Your task to perform on an android device: Open CNN.com Image 0: 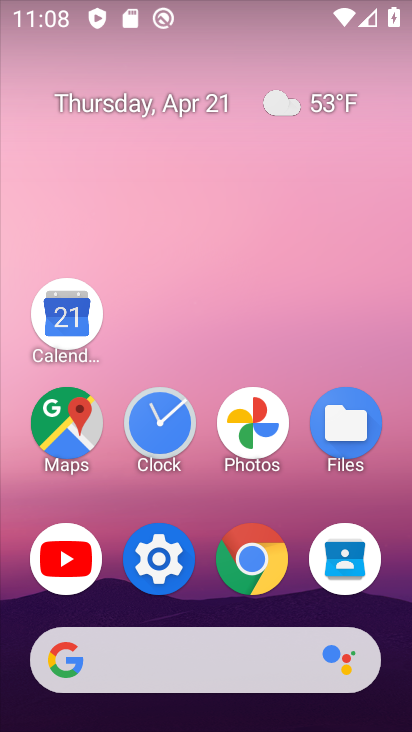
Step 0: click (249, 558)
Your task to perform on an android device: Open CNN.com Image 1: 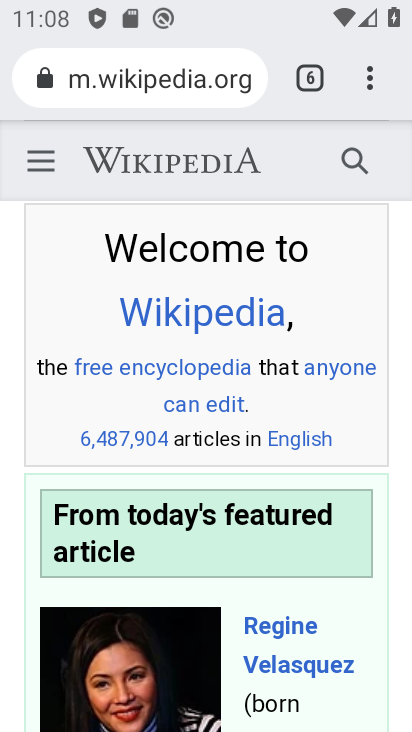
Step 1: click (368, 79)
Your task to perform on an android device: Open CNN.com Image 2: 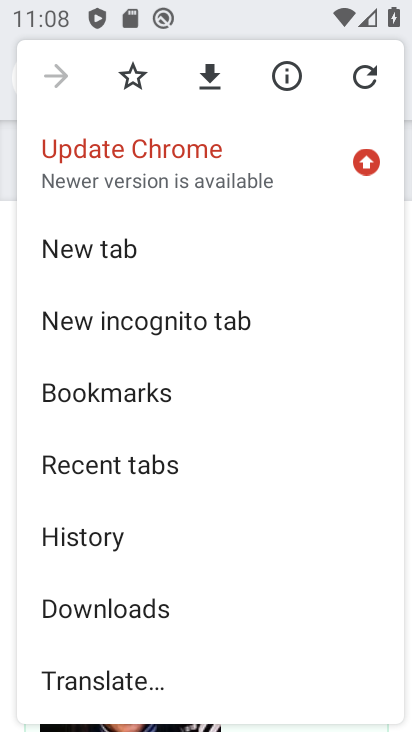
Step 2: click (107, 253)
Your task to perform on an android device: Open CNN.com Image 3: 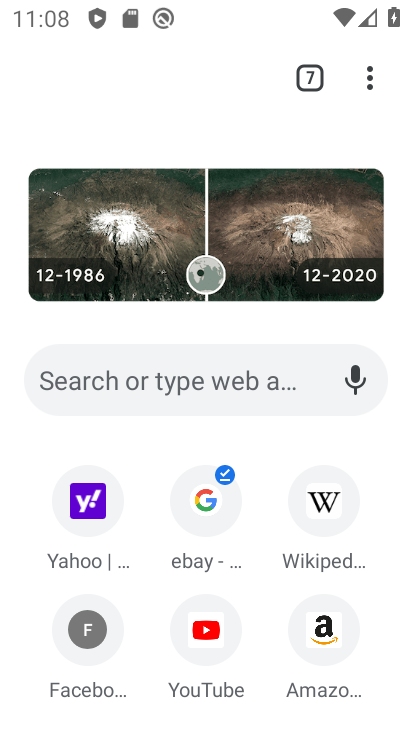
Step 3: click (202, 370)
Your task to perform on an android device: Open CNN.com Image 4: 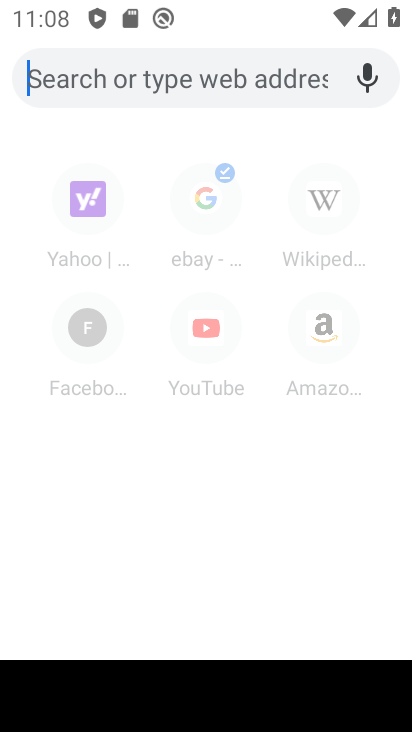
Step 4: type "cnn.com"
Your task to perform on an android device: Open CNN.com Image 5: 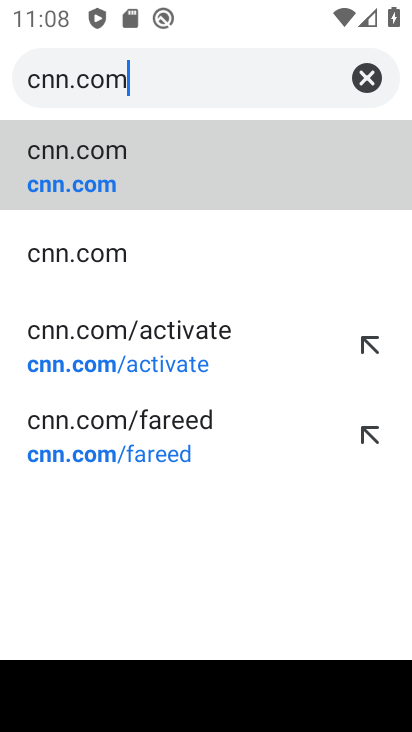
Step 5: click (71, 161)
Your task to perform on an android device: Open CNN.com Image 6: 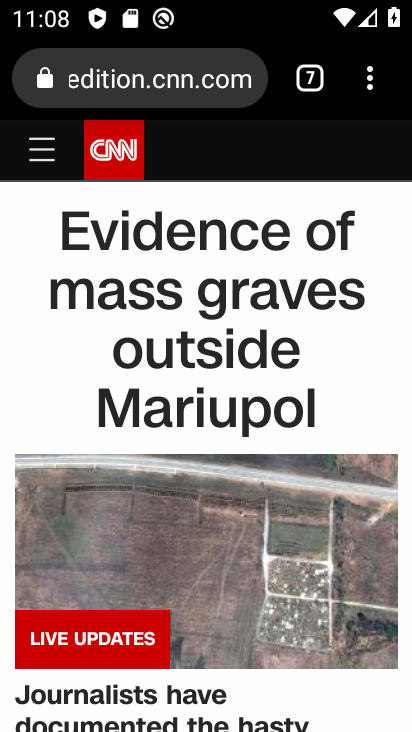
Step 6: task complete